Your task to perform on an android device: Open Amazon Image 0: 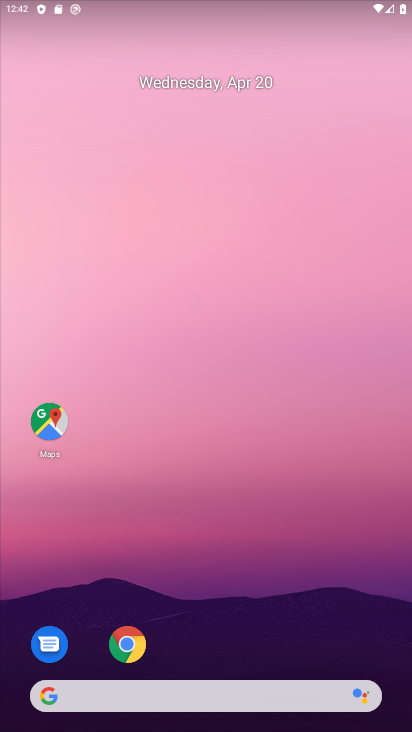
Step 0: click (127, 651)
Your task to perform on an android device: Open Amazon Image 1: 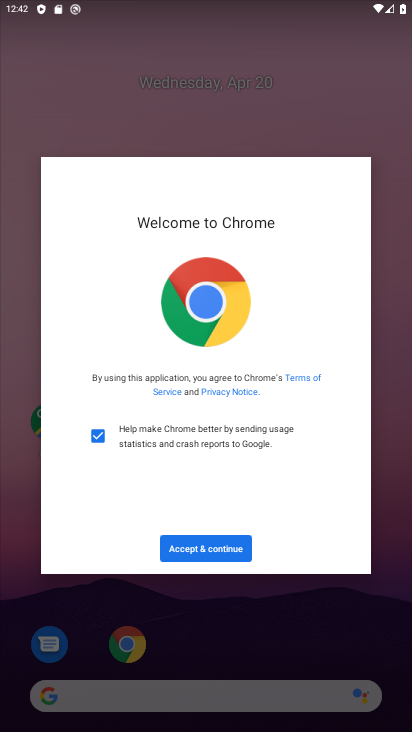
Step 1: click (185, 547)
Your task to perform on an android device: Open Amazon Image 2: 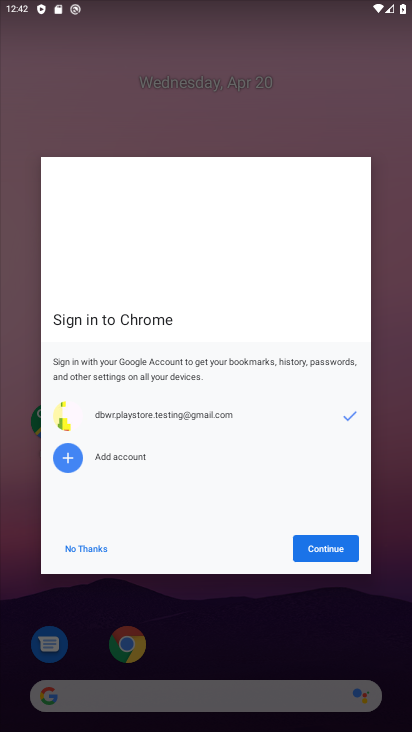
Step 2: click (338, 550)
Your task to perform on an android device: Open Amazon Image 3: 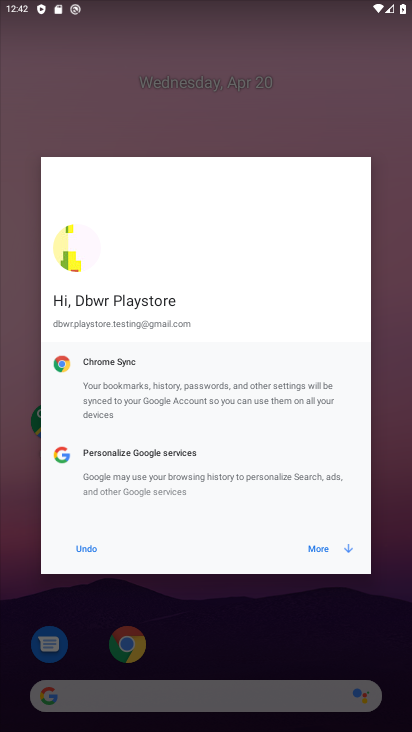
Step 3: click (330, 551)
Your task to perform on an android device: Open Amazon Image 4: 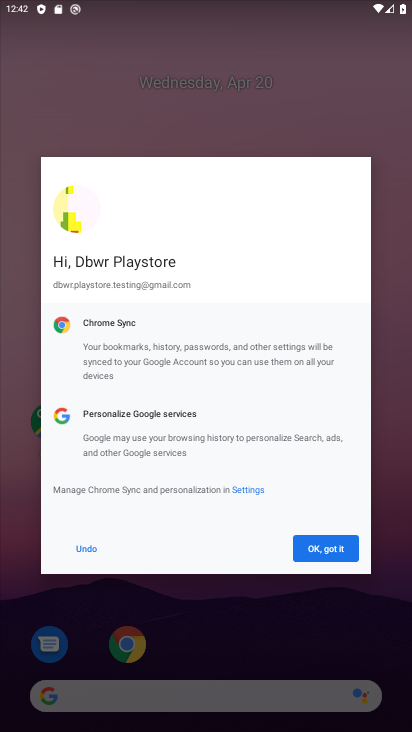
Step 4: click (330, 551)
Your task to perform on an android device: Open Amazon Image 5: 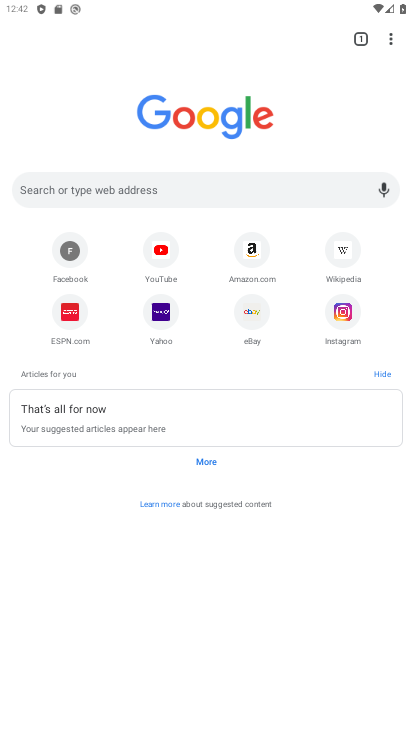
Step 5: click (255, 251)
Your task to perform on an android device: Open Amazon Image 6: 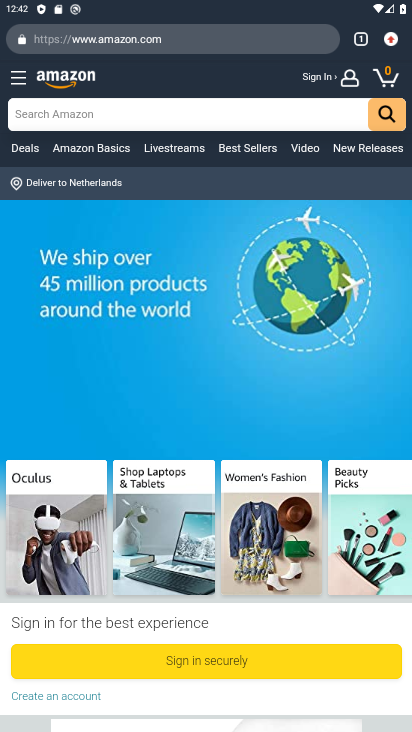
Step 6: task complete